Your task to perform on an android device: Show the shopping cart on newegg. Add "apple airpods pro" to the cart on newegg Image 0: 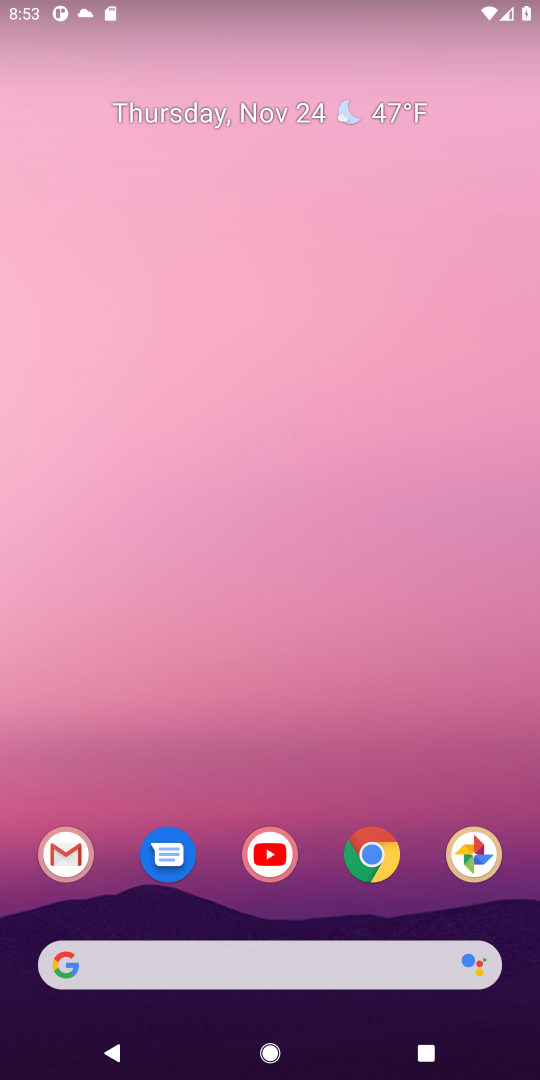
Step 0: click (377, 860)
Your task to perform on an android device: Show the shopping cart on newegg. Add "apple airpods pro" to the cart on newegg Image 1: 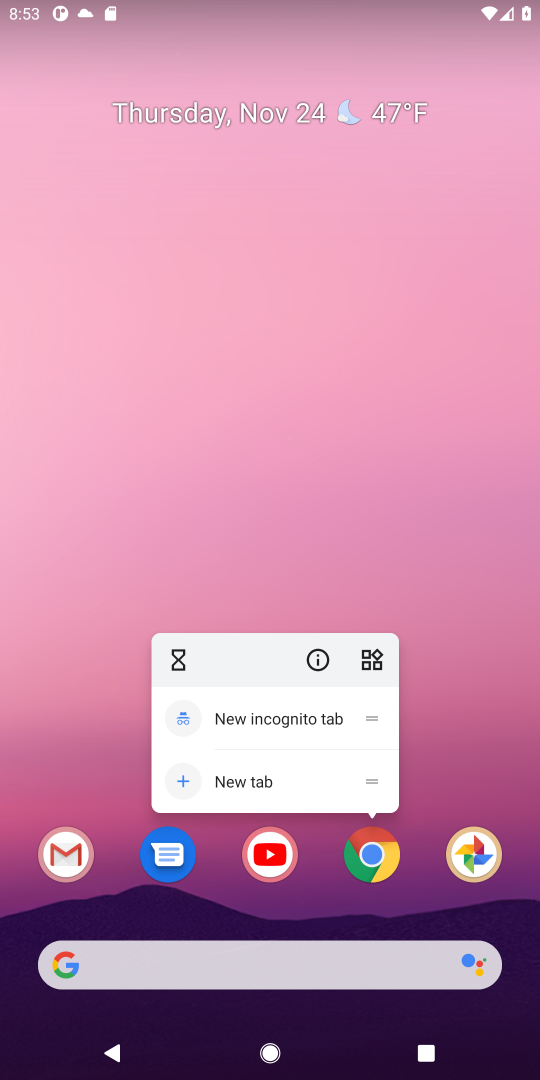
Step 1: click (377, 860)
Your task to perform on an android device: Show the shopping cart on newegg. Add "apple airpods pro" to the cart on newegg Image 2: 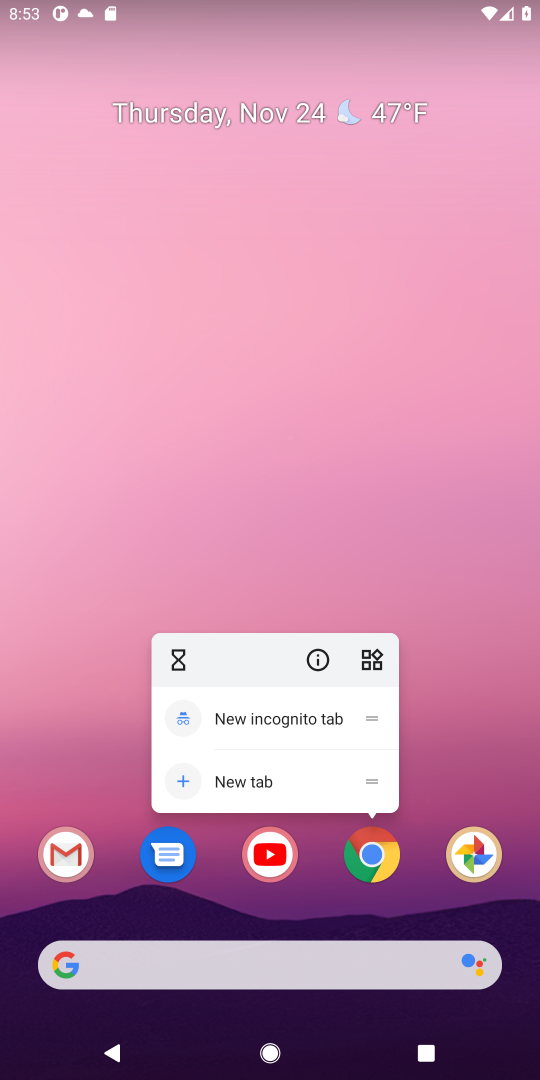
Step 2: click (377, 860)
Your task to perform on an android device: Show the shopping cart on newegg. Add "apple airpods pro" to the cart on newegg Image 3: 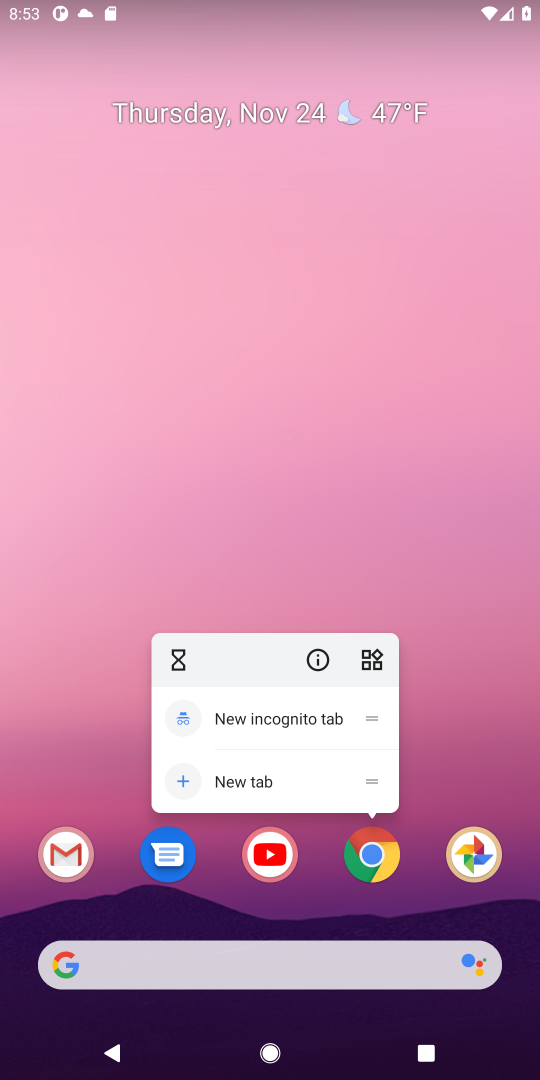
Step 3: click (377, 860)
Your task to perform on an android device: Show the shopping cart on newegg. Add "apple airpods pro" to the cart on newegg Image 4: 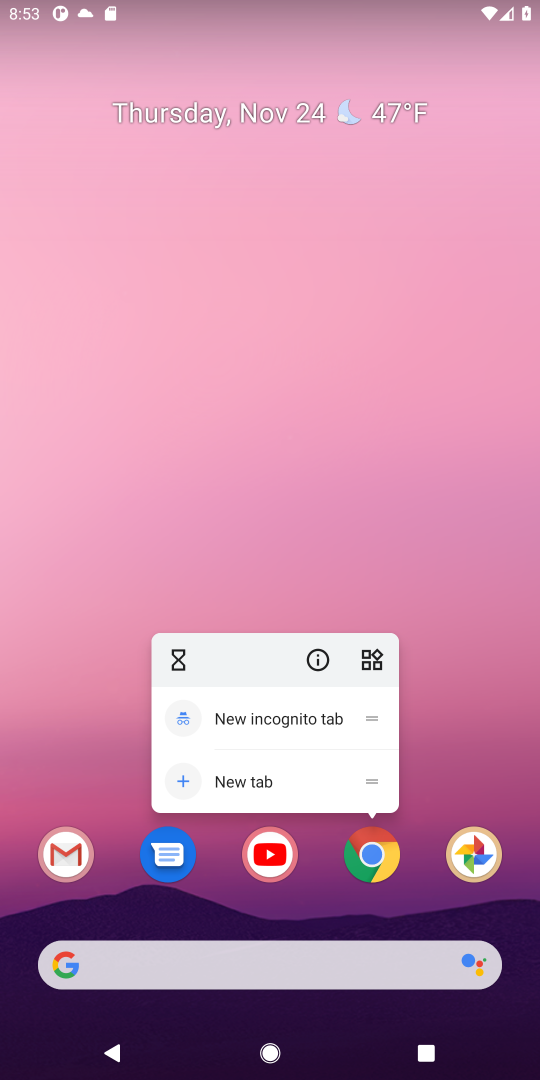
Step 4: click (481, 750)
Your task to perform on an android device: Show the shopping cart on newegg. Add "apple airpods pro" to the cart on newegg Image 5: 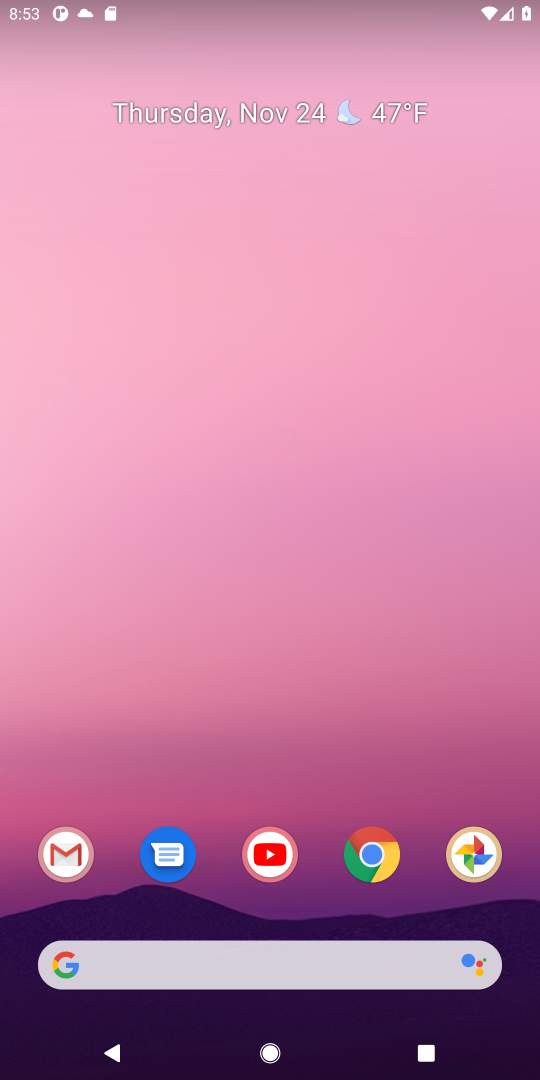
Step 5: click (373, 866)
Your task to perform on an android device: Show the shopping cart on newegg. Add "apple airpods pro" to the cart on newegg Image 6: 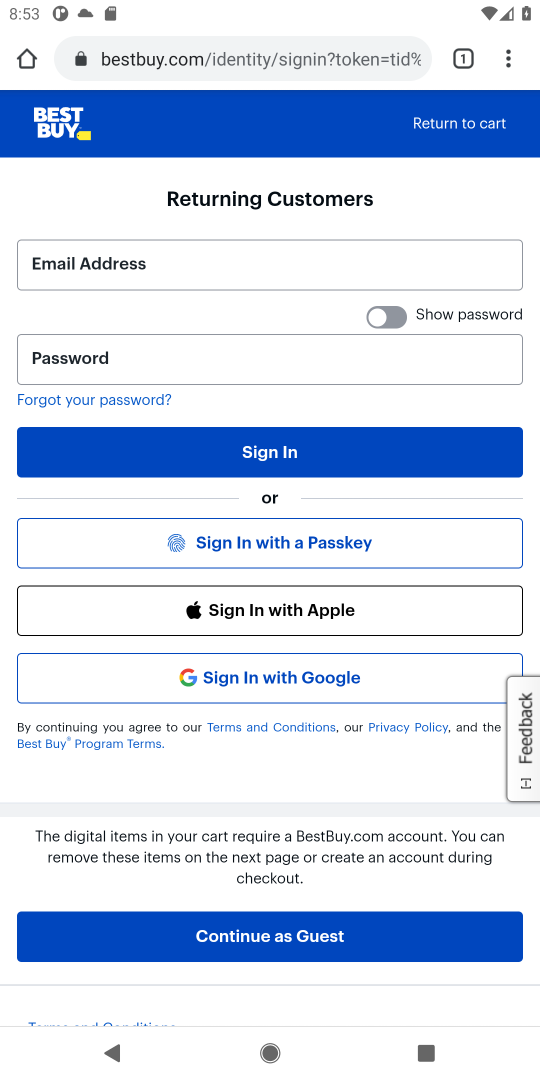
Step 6: click (219, 65)
Your task to perform on an android device: Show the shopping cart on newegg. Add "apple airpods pro" to the cart on newegg Image 7: 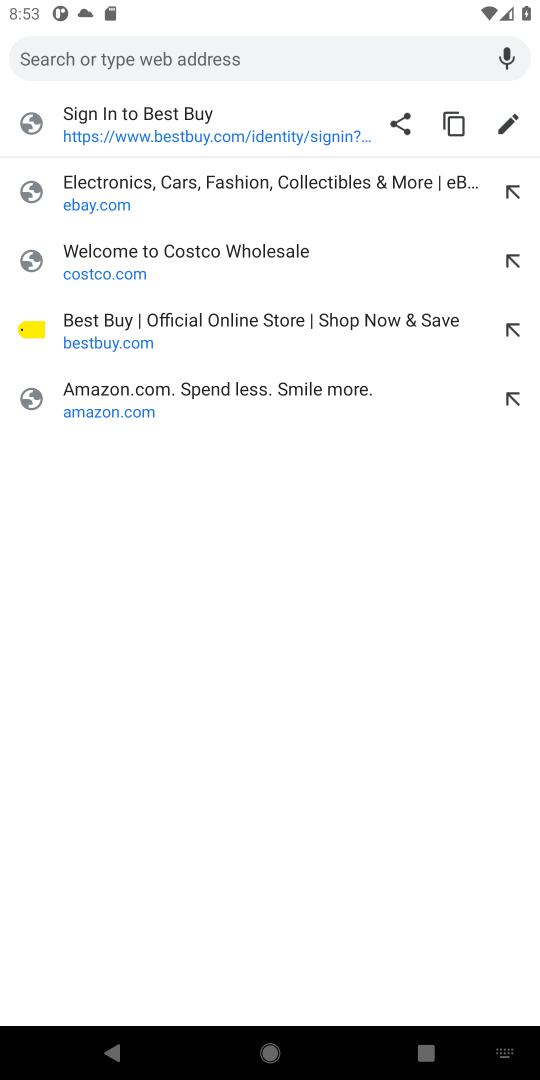
Step 7: type "newegg.com"
Your task to perform on an android device: Show the shopping cart on newegg. Add "apple airpods pro" to the cart on newegg Image 8: 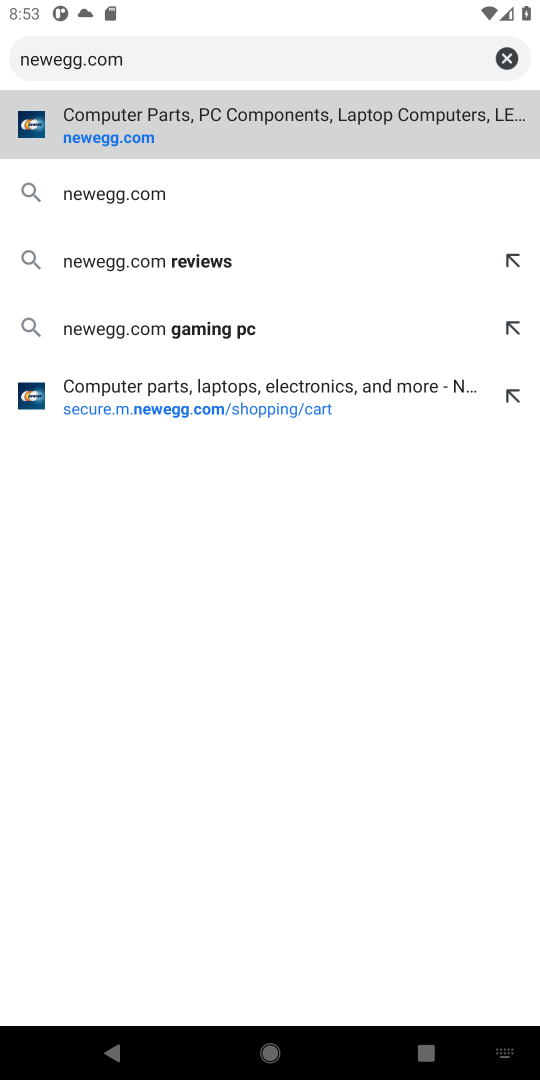
Step 8: click (79, 137)
Your task to perform on an android device: Show the shopping cart on newegg. Add "apple airpods pro" to the cart on newegg Image 9: 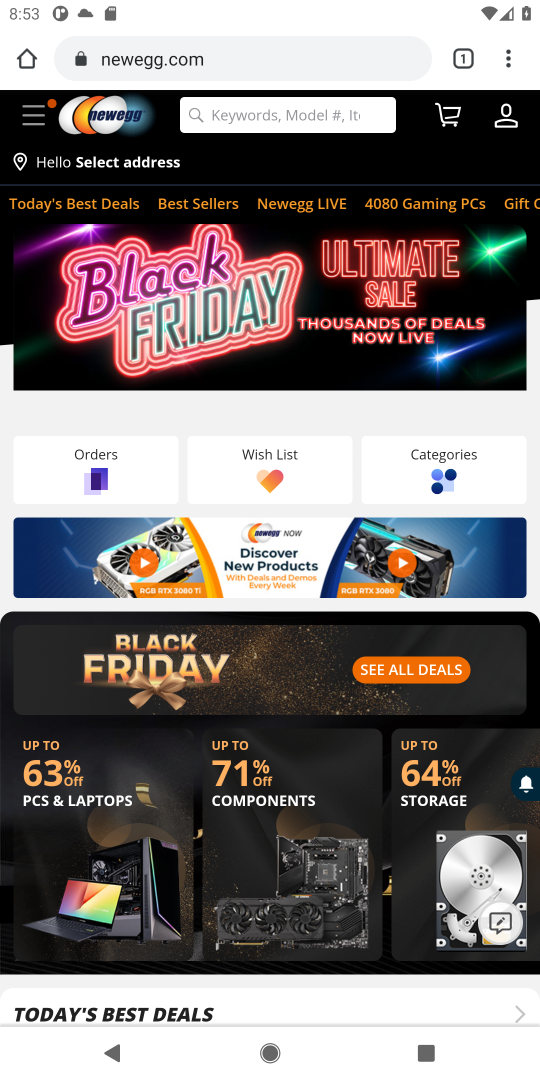
Step 9: click (447, 133)
Your task to perform on an android device: Show the shopping cart on newegg. Add "apple airpods pro" to the cart on newegg Image 10: 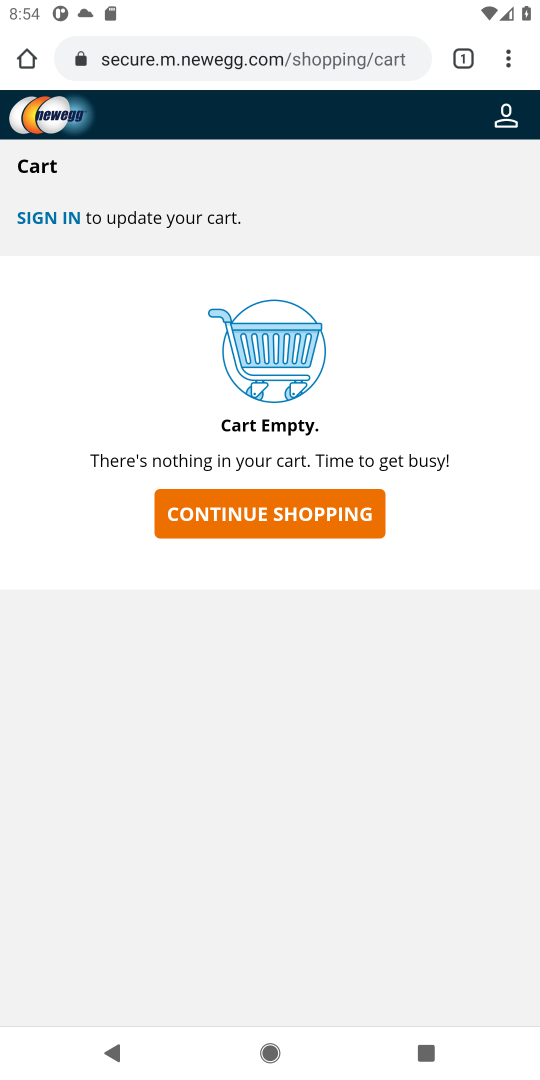
Step 10: click (286, 519)
Your task to perform on an android device: Show the shopping cart on newegg. Add "apple airpods pro" to the cart on newegg Image 11: 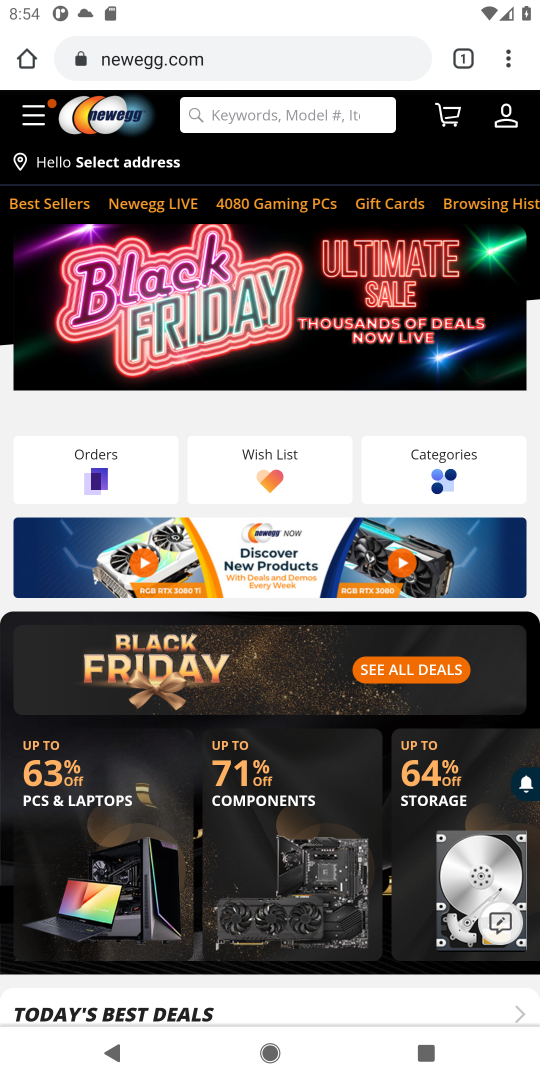
Step 11: click (231, 121)
Your task to perform on an android device: Show the shopping cart on newegg. Add "apple airpods pro" to the cart on newegg Image 12: 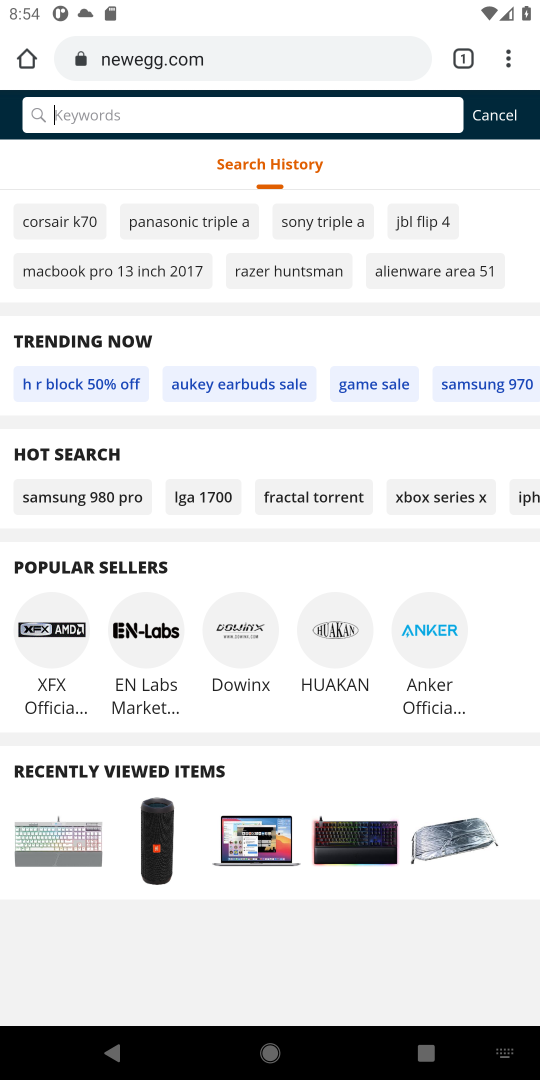
Step 12: type "apple airpods pro"
Your task to perform on an android device: Show the shopping cart on newegg. Add "apple airpods pro" to the cart on newegg Image 13: 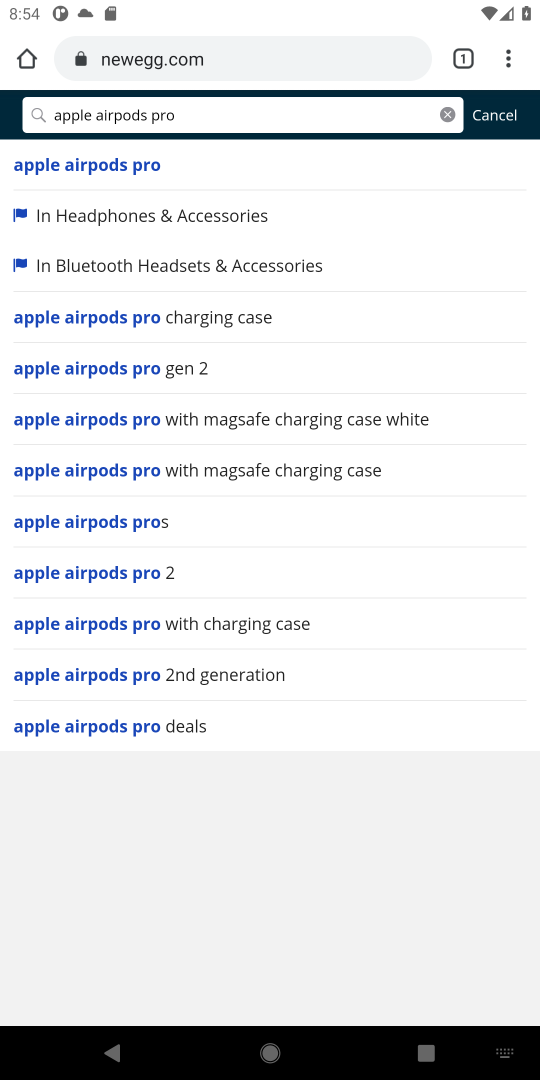
Step 13: click (75, 165)
Your task to perform on an android device: Show the shopping cart on newegg. Add "apple airpods pro" to the cart on newegg Image 14: 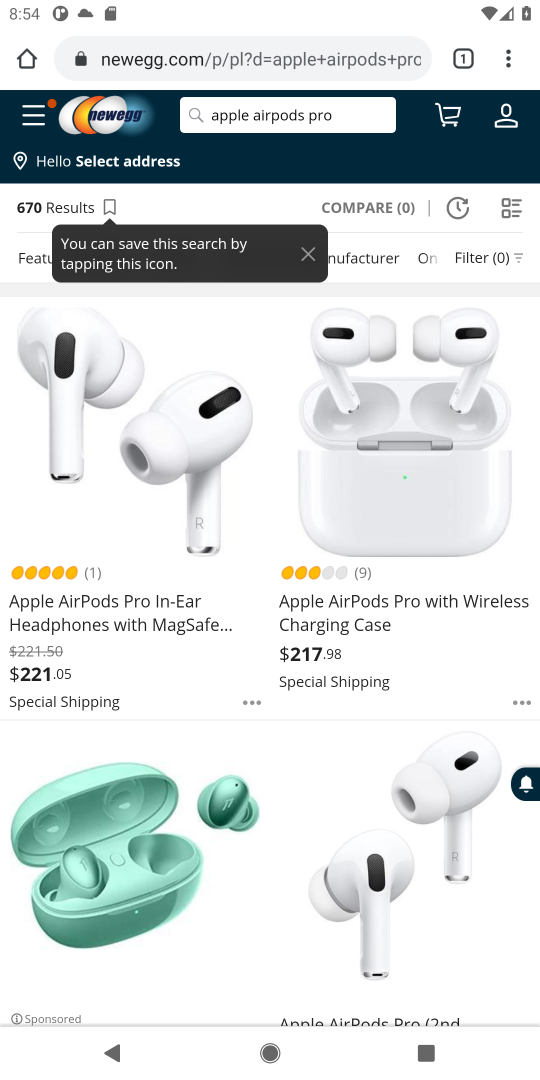
Step 14: click (120, 498)
Your task to perform on an android device: Show the shopping cart on newegg. Add "apple airpods pro" to the cart on newegg Image 15: 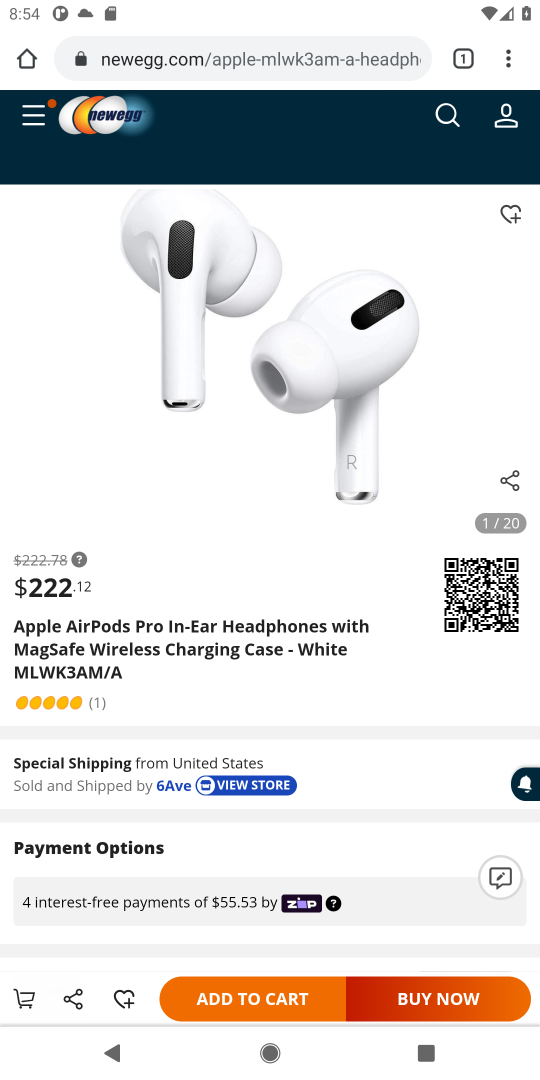
Step 15: click (238, 1011)
Your task to perform on an android device: Show the shopping cart on newegg. Add "apple airpods pro" to the cart on newegg Image 16: 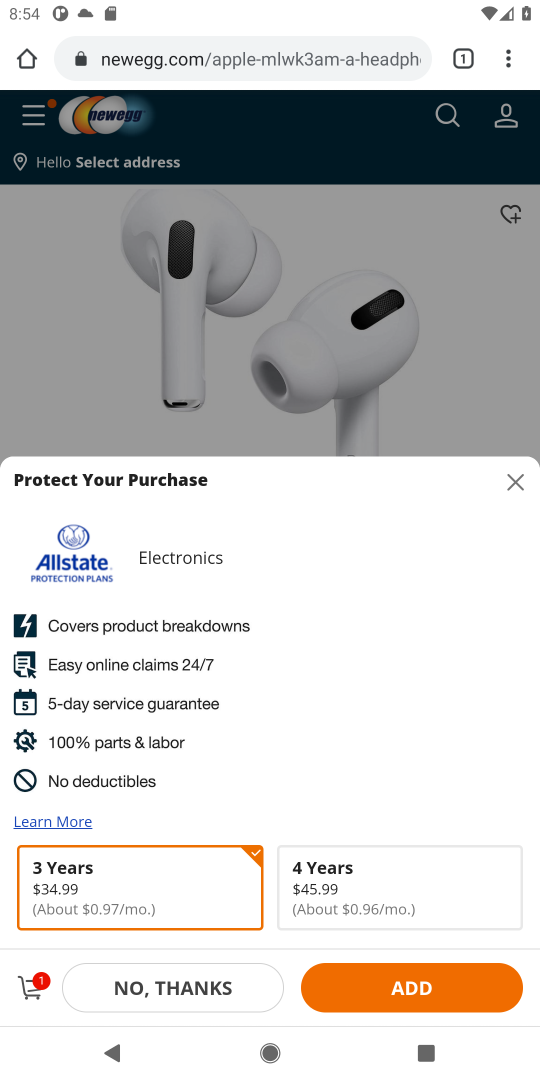
Step 16: task complete